Your task to perform on an android device: turn on bluetooth scan Image 0: 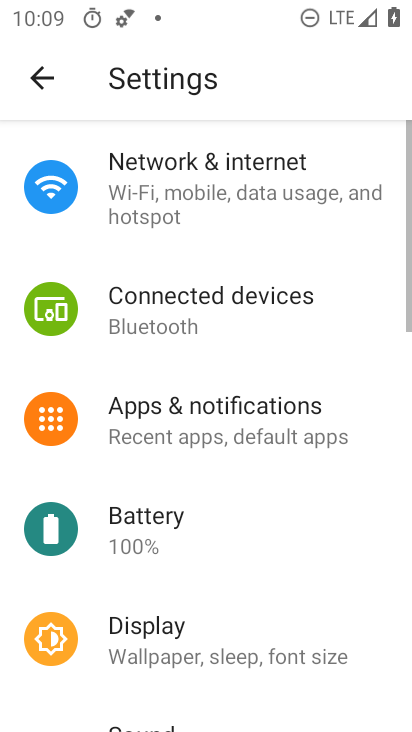
Step 0: press home button
Your task to perform on an android device: turn on bluetooth scan Image 1: 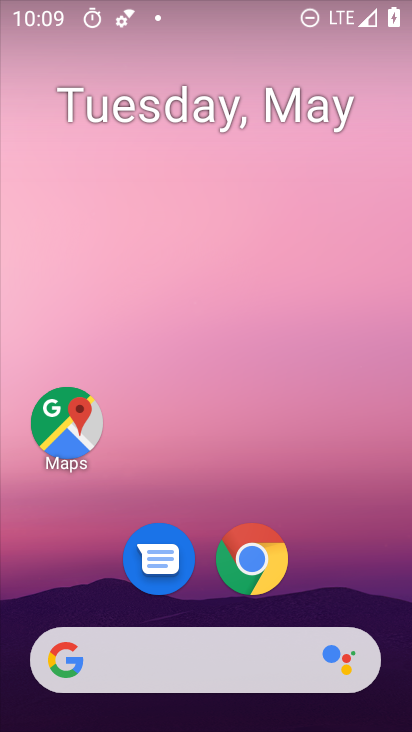
Step 1: drag from (397, 624) to (254, 112)
Your task to perform on an android device: turn on bluetooth scan Image 2: 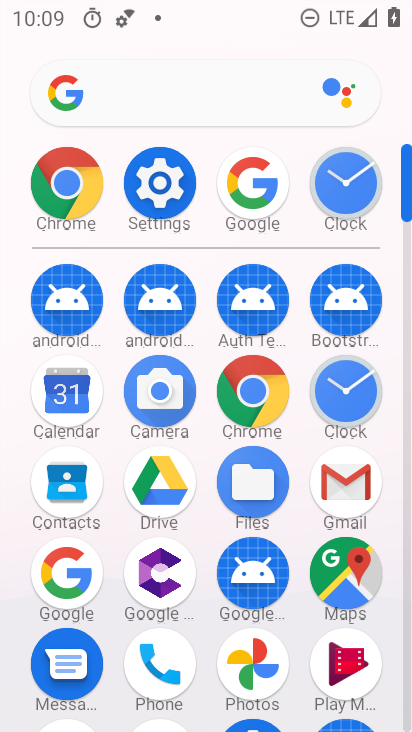
Step 2: click (158, 173)
Your task to perform on an android device: turn on bluetooth scan Image 3: 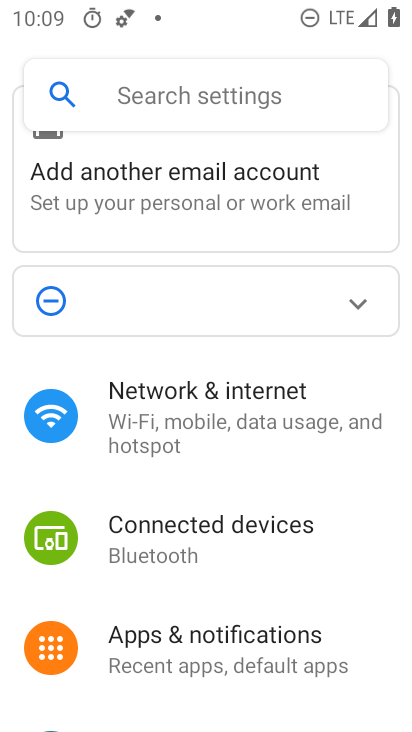
Step 3: drag from (274, 637) to (229, 269)
Your task to perform on an android device: turn on bluetooth scan Image 4: 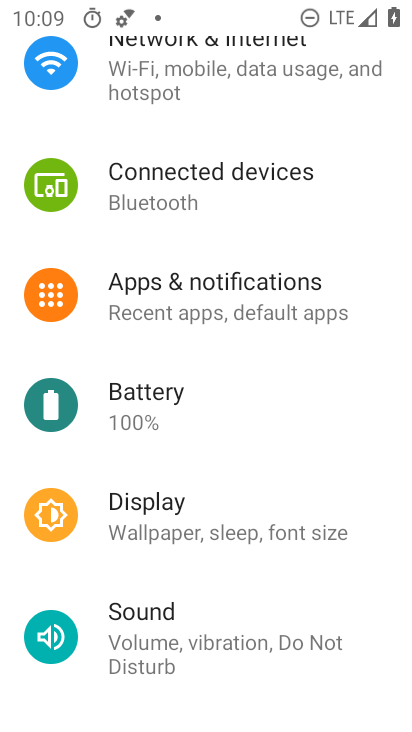
Step 4: drag from (201, 582) to (190, 254)
Your task to perform on an android device: turn on bluetooth scan Image 5: 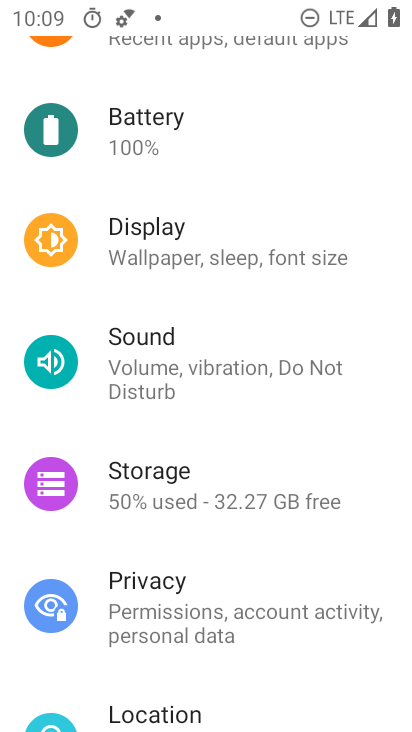
Step 5: click (190, 719)
Your task to perform on an android device: turn on bluetooth scan Image 6: 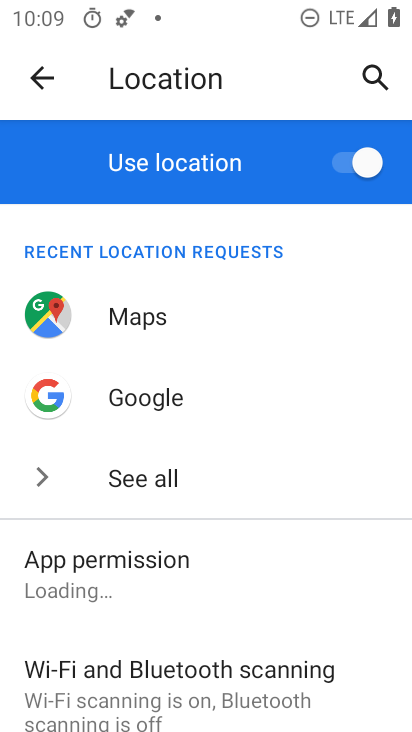
Step 6: click (213, 683)
Your task to perform on an android device: turn on bluetooth scan Image 7: 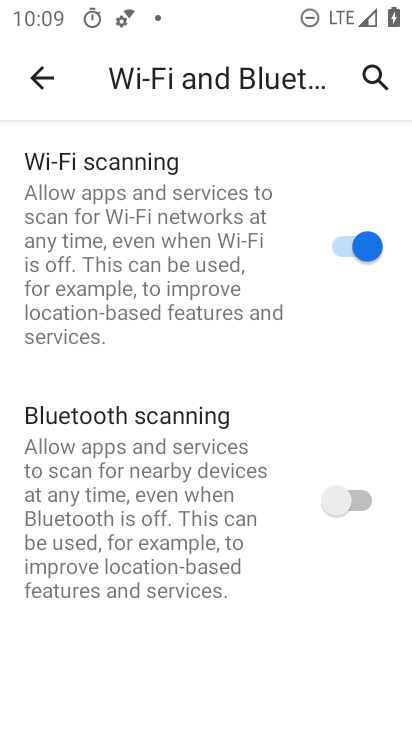
Step 7: click (354, 503)
Your task to perform on an android device: turn on bluetooth scan Image 8: 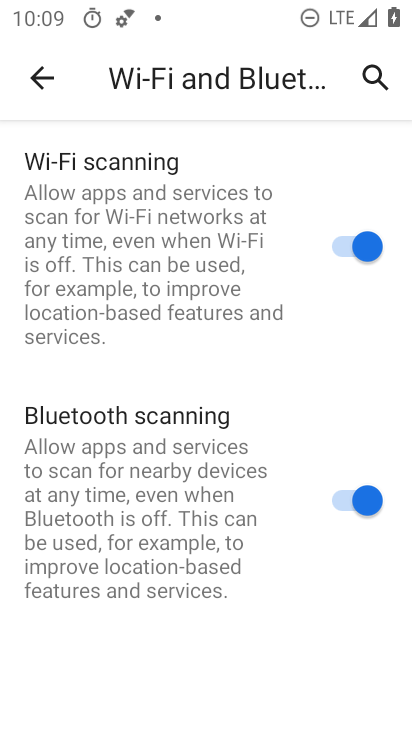
Step 8: task complete